Your task to perform on an android device: delete a single message in the gmail app Image 0: 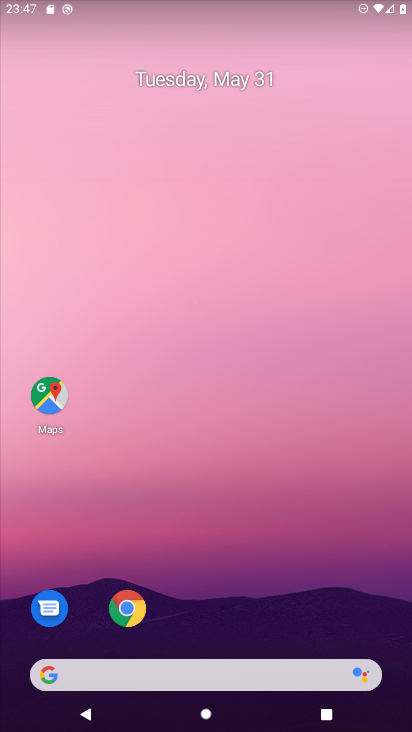
Step 0: press home button
Your task to perform on an android device: delete a single message in the gmail app Image 1: 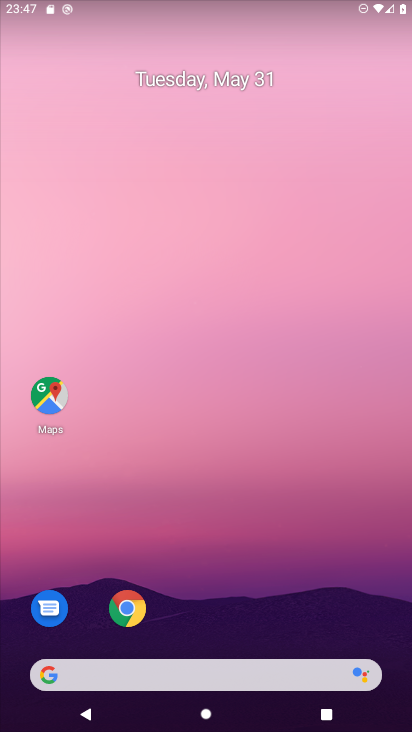
Step 1: drag from (386, 572) to (318, 6)
Your task to perform on an android device: delete a single message in the gmail app Image 2: 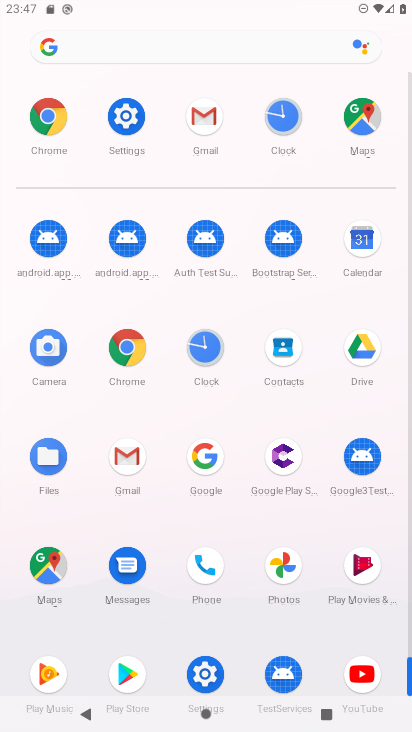
Step 2: click (190, 130)
Your task to perform on an android device: delete a single message in the gmail app Image 3: 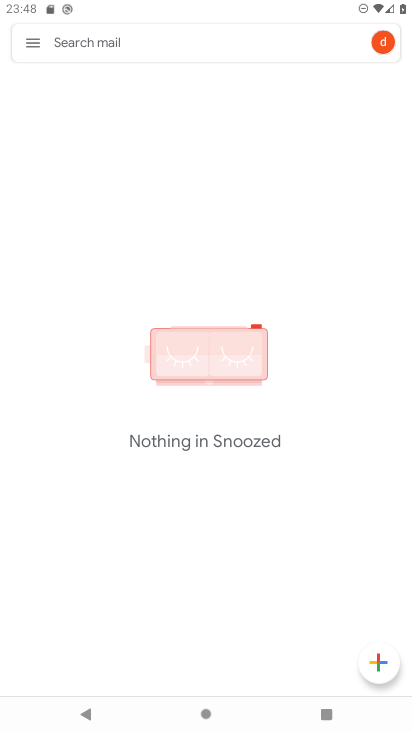
Step 3: click (40, 44)
Your task to perform on an android device: delete a single message in the gmail app Image 4: 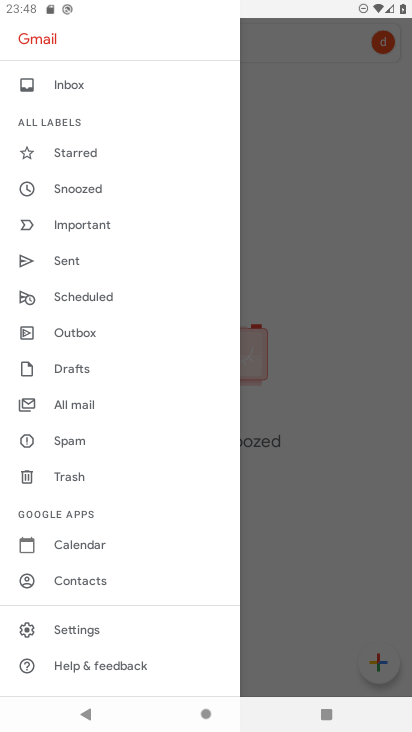
Step 4: task complete